Your task to perform on an android device: snooze an email in the gmail app Image 0: 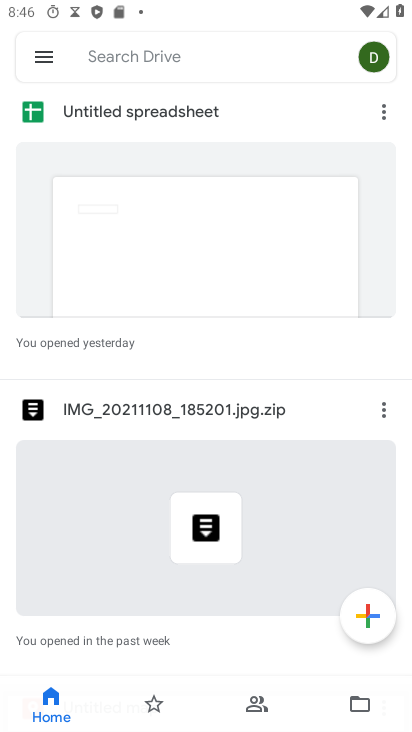
Step 0: press home button
Your task to perform on an android device: snooze an email in the gmail app Image 1: 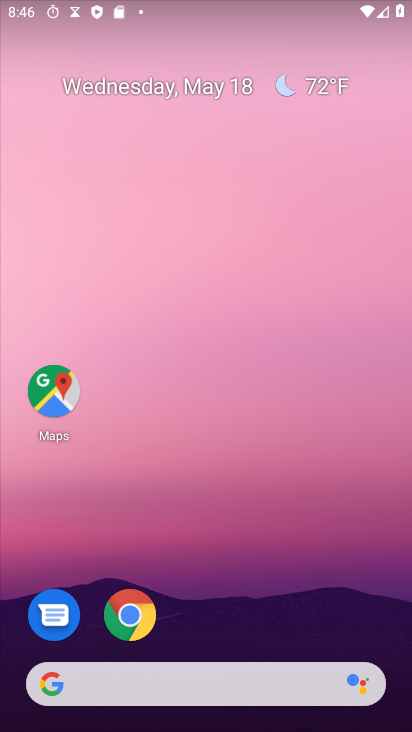
Step 1: drag from (251, 590) to (250, 88)
Your task to perform on an android device: snooze an email in the gmail app Image 2: 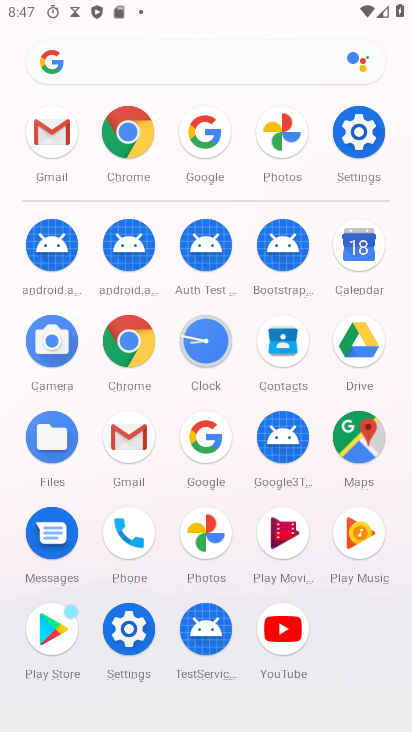
Step 2: click (61, 135)
Your task to perform on an android device: snooze an email in the gmail app Image 3: 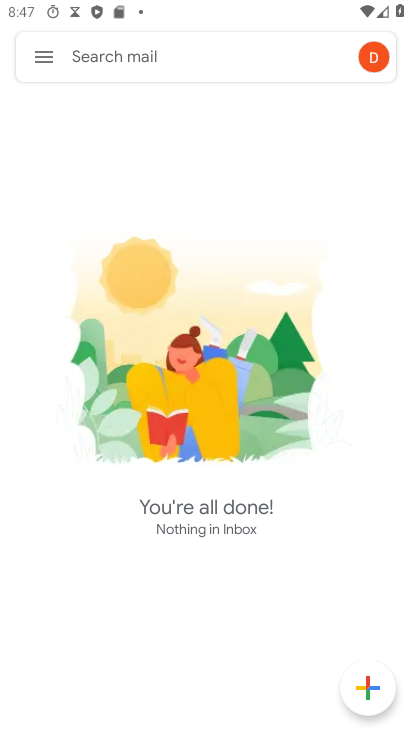
Step 3: click (40, 52)
Your task to perform on an android device: snooze an email in the gmail app Image 4: 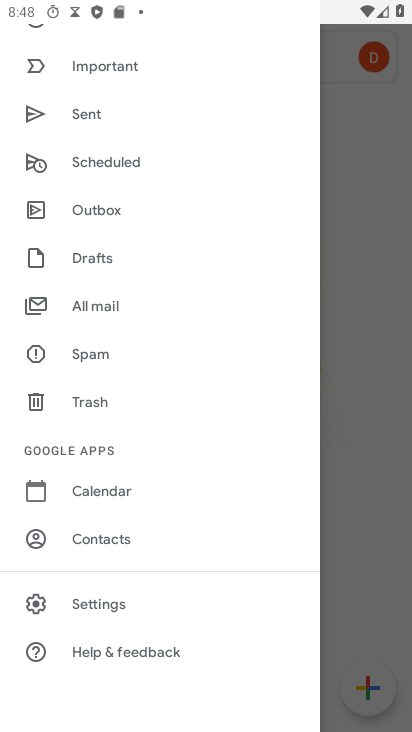
Step 4: click (91, 303)
Your task to perform on an android device: snooze an email in the gmail app Image 5: 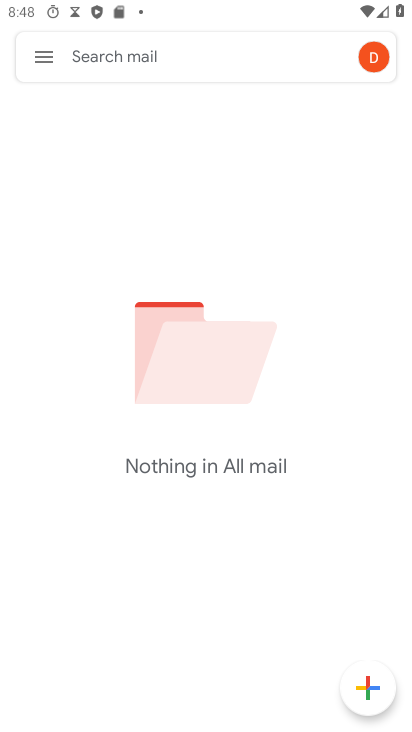
Step 5: task complete